Your task to perform on an android device: open device folders in google photos Image 0: 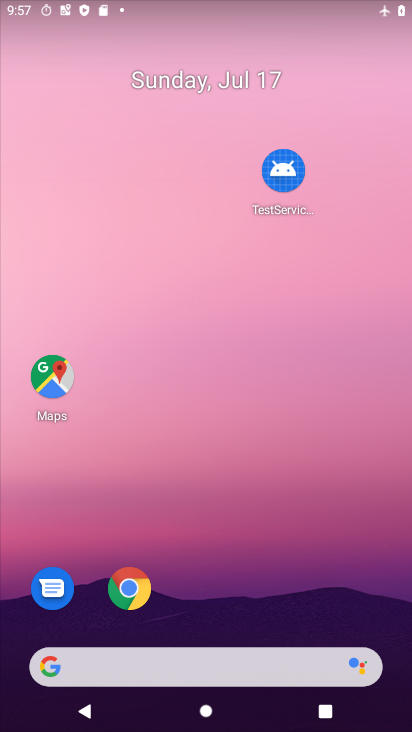
Step 0: drag from (236, 673) to (322, 284)
Your task to perform on an android device: open device folders in google photos Image 1: 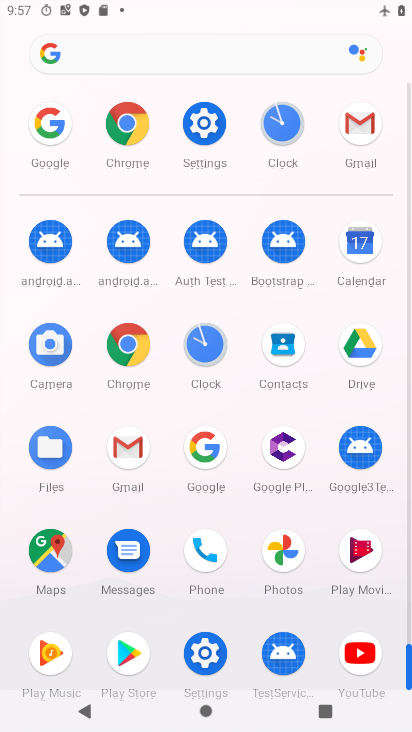
Step 1: click (287, 569)
Your task to perform on an android device: open device folders in google photos Image 2: 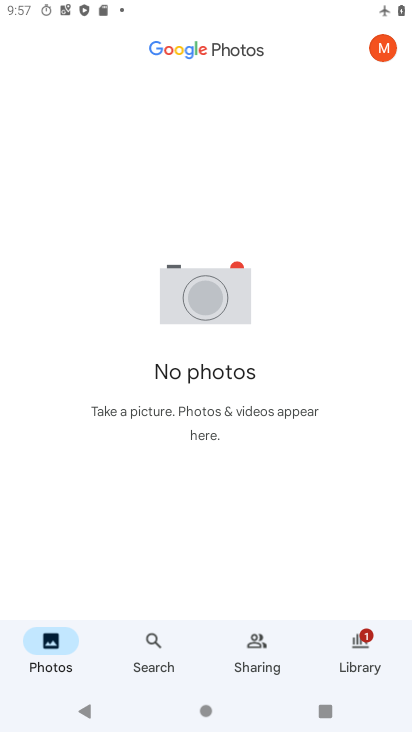
Step 2: click (393, 45)
Your task to perform on an android device: open device folders in google photos Image 3: 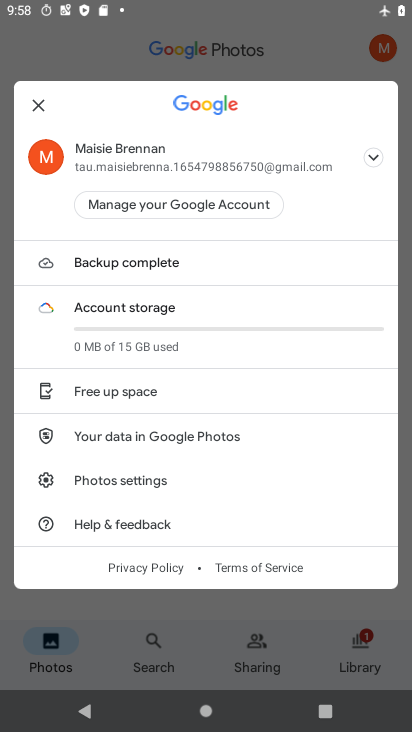
Step 3: task complete